Your task to perform on an android device: What is the recent news? Image 0: 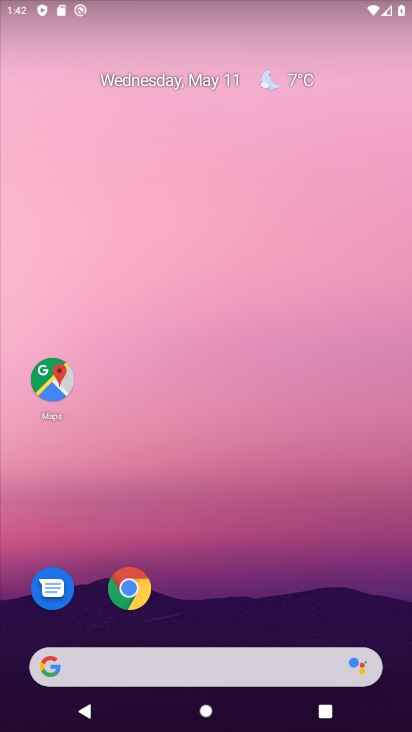
Step 0: drag from (262, 592) to (267, 151)
Your task to perform on an android device: What is the recent news? Image 1: 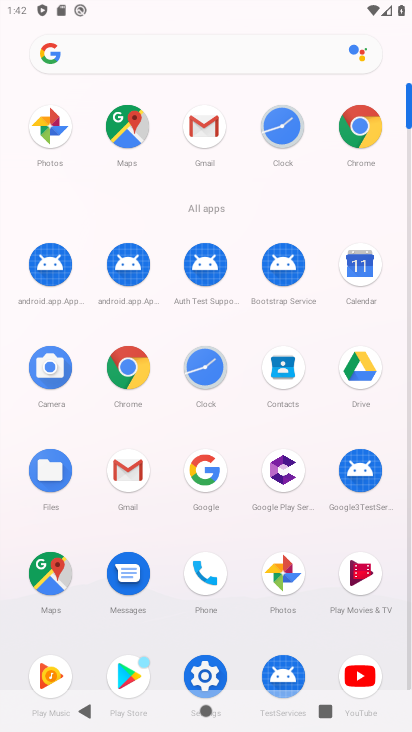
Step 1: click (146, 382)
Your task to perform on an android device: What is the recent news? Image 2: 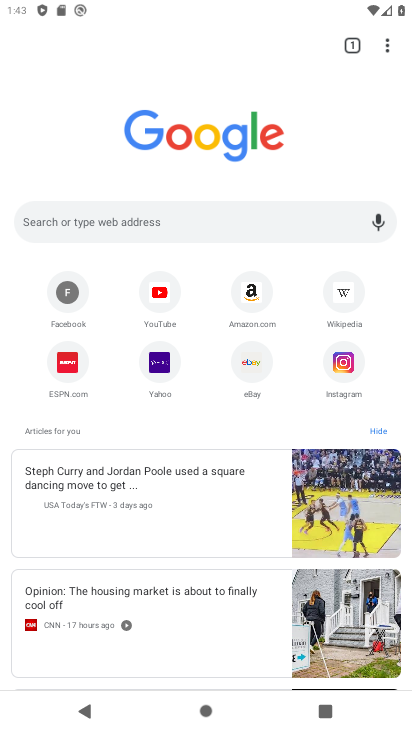
Step 2: task complete